Your task to perform on an android device: Open display settings Image 0: 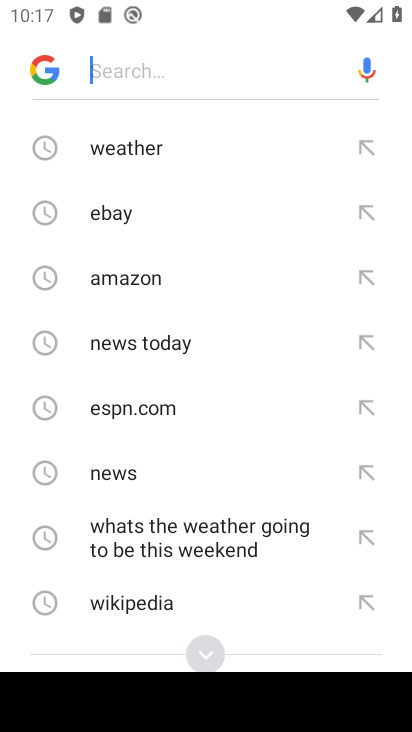
Step 0: press home button
Your task to perform on an android device: Open display settings Image 1: 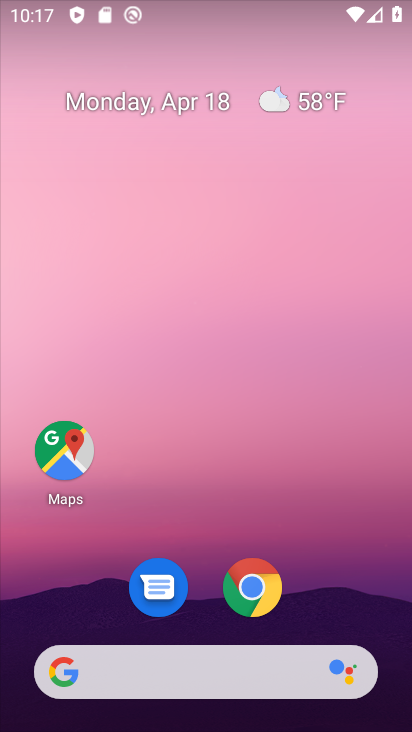
Step 1: drag from (166, 568) to (72, 6)
Your task to perform on an android device: Open display settings Image 2: 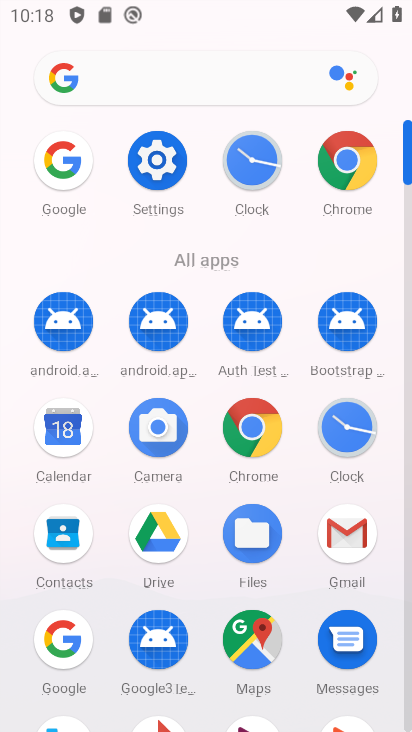
Step 2: click (153, 161)
Your task to perform on an android device: Open display settings Image 3: 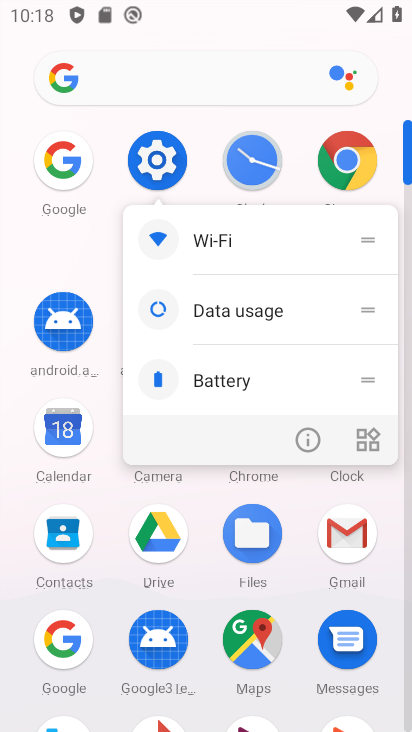
Step 3: click (160, 160)
Your task to perform on an android device: Open display settings Image 4: 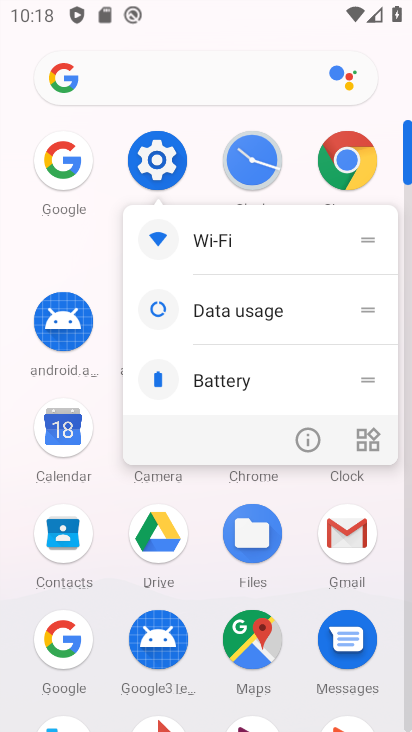
Step 4: click (160, 160)
Your task to perform on an android device: Open display settings Image 5: 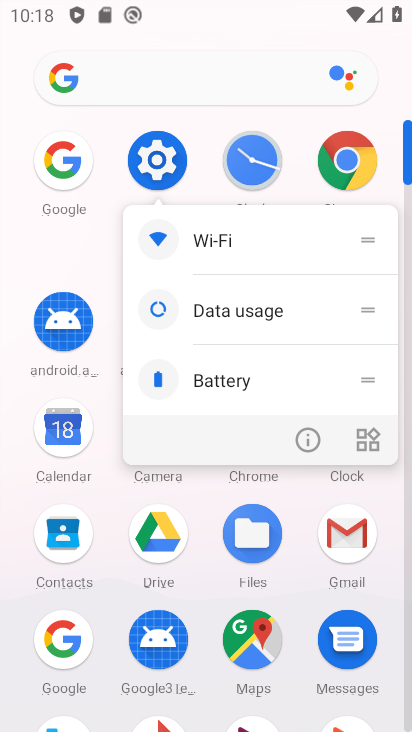
Step 5: click (160, 160)
Your task to perform on an android device: Open display settings Image 6: 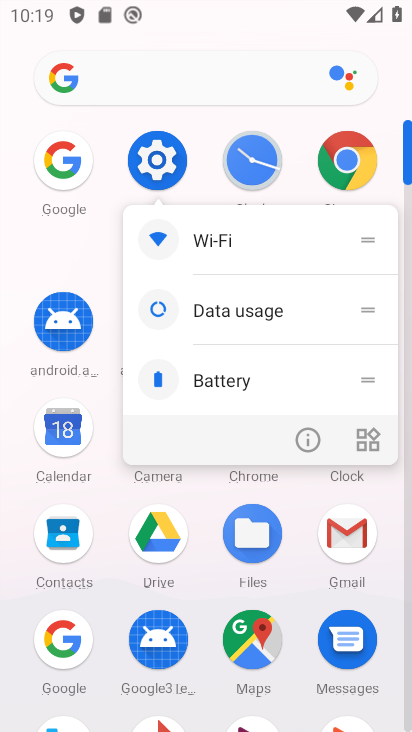
Step 6: click (171, 171)
Your task to perform on an android device: Open display settings Image 7: 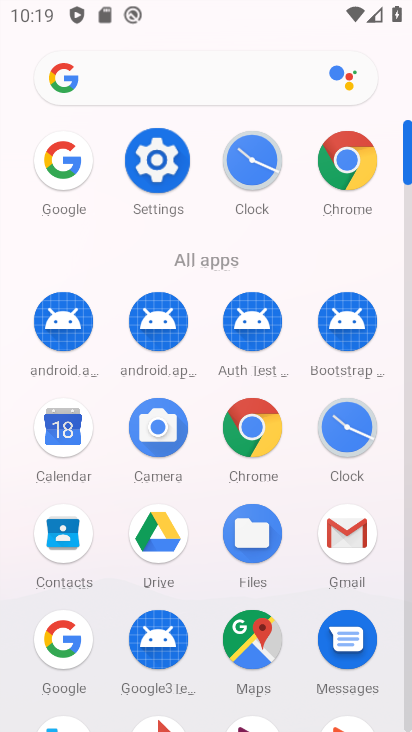
Step 7: click (171, 171)
Your task to perform on an android device: Open display settings Image 8: 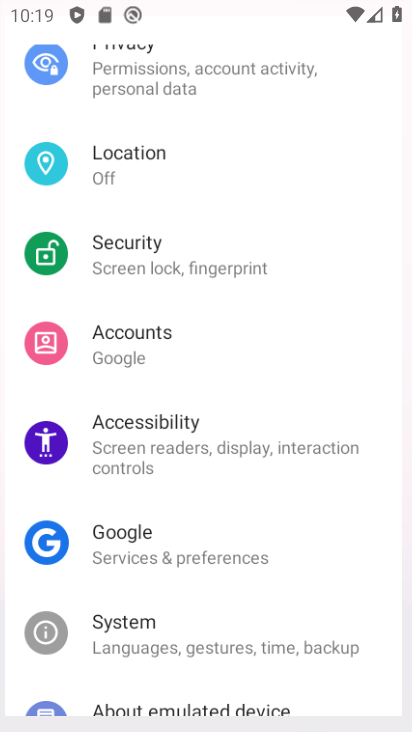
Step 8: click (158, 164)
Your task to perform on an android device: Open display settings Image 9: 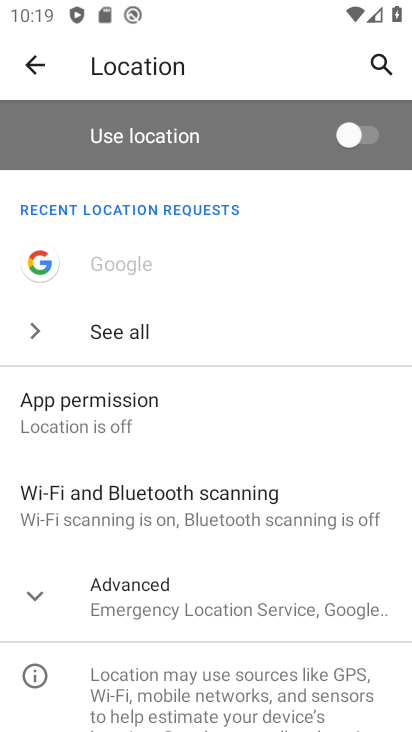
Step 9: click (36, 63)
Your task to perform on an android device: Open display settings Image 10: 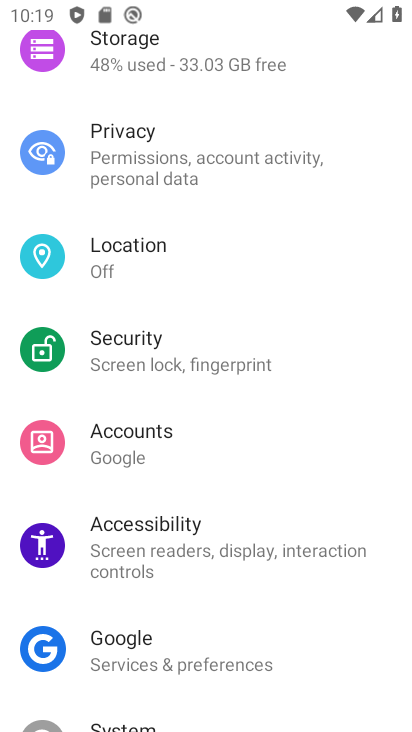
Step 10: drag from (170, 474) to (131, 259)
Your task to perform on an android device: Open display settings Image 11: 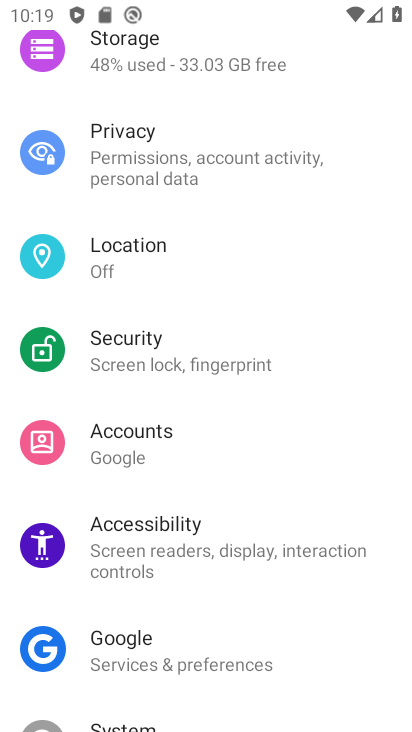
Step 11: drag from (203, 265) to (260, 696)
Your task to perform on an android device: Open display settings Image 12: 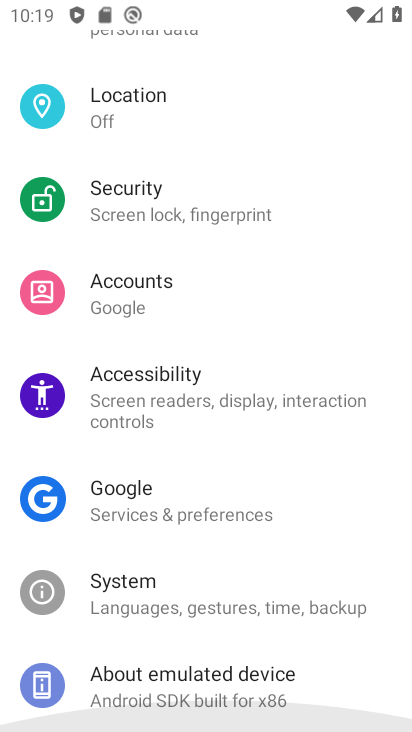
Step 12: click (262, 620)
Your task to perform on an android device: Open display settings Image 13: 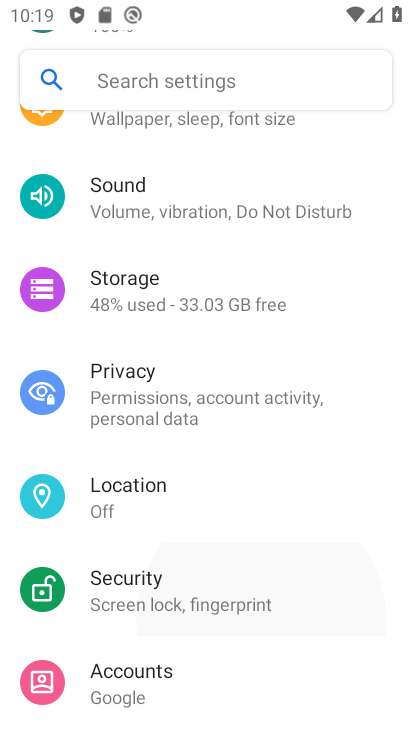
Step 13: drag from (312, 428) to (320, 541)
Your task to perform on an android device: Open display settings Image 14: 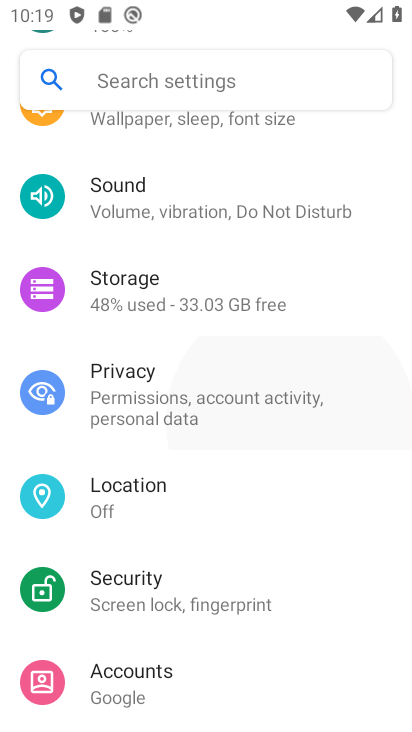
Step 14: click (279, 541)
Your task to perform on an android device: Open display settings Image 15: 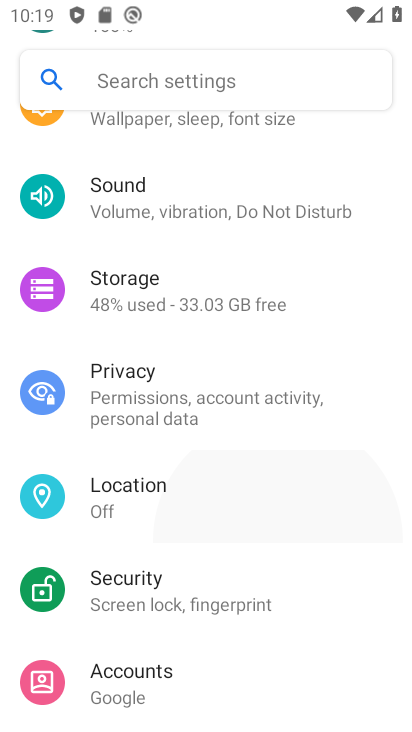
Step 15: drag from (153, 547) to (187, 679)
Your task to perform on an android device: Open display settings Image 16: 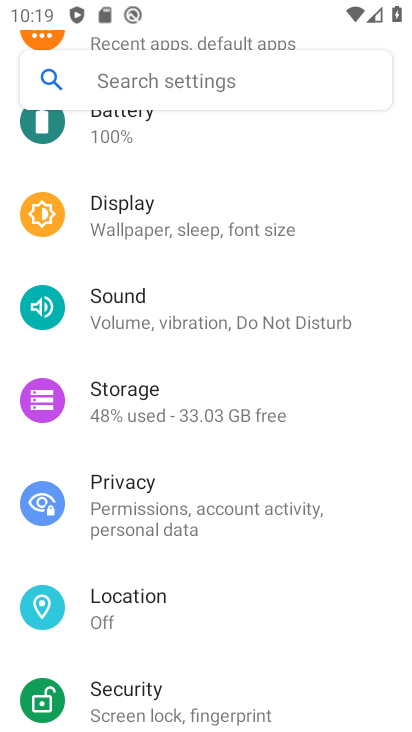
Step 16: click (138, 223)
Your task to perform on an android device: Open display settings Image 17: 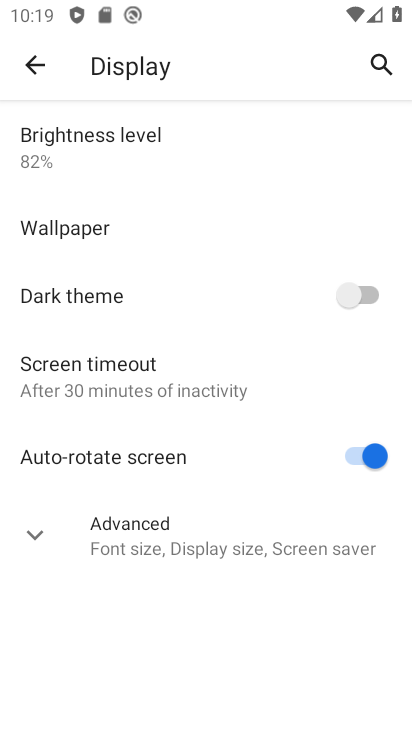
Step 17: task complete